Your task to perform on an android device: Open the calendar and show me this week's events Image 0: 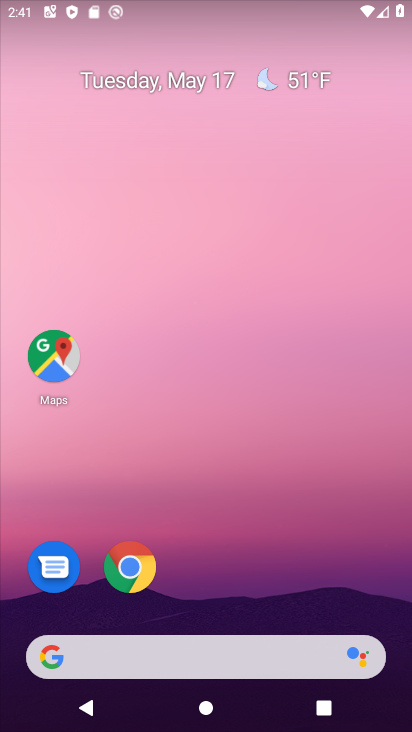
Step 0: drag from (213, 659) to (210, 378)
Your task to perform on an android device: Open the calendar and show me this week's events Image 1: 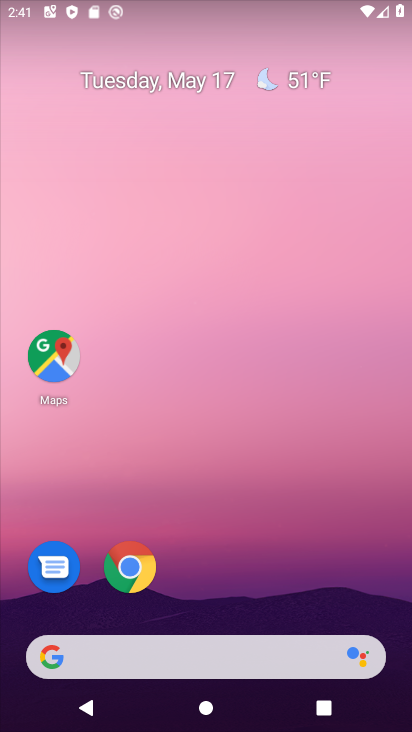
Step 1: drag from (207, 650) to (170, 230)
Your task to perform on an android device: Open the calendar and show me this week's events Image 2: 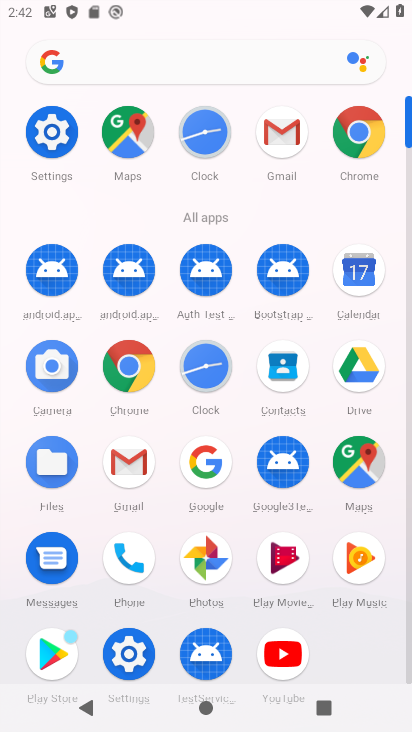
Step 2: click (366, 263)
Your task to perform on an android device: Open the calendar and show me this week's events Image 3: 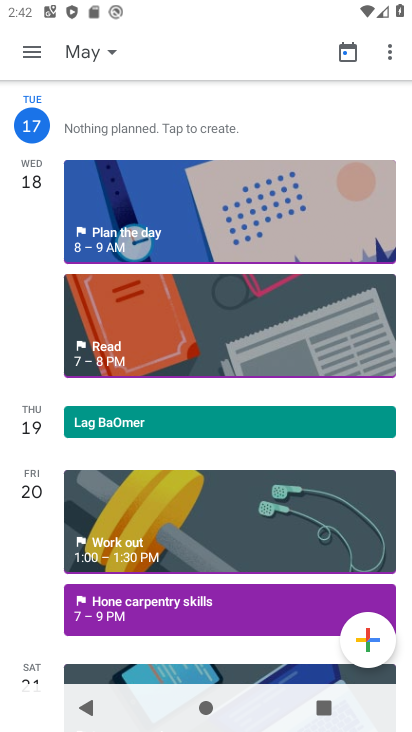
Step 3: click (40, 53)
Your task to perform on an android device: Open the calendar and show me this week's events Image 4: 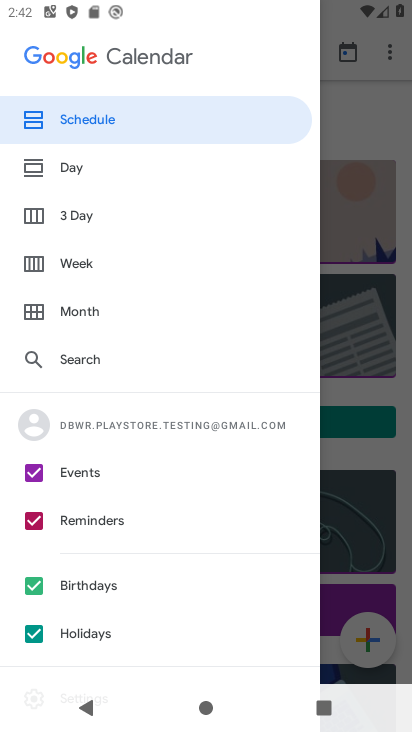
Step 4: click (73, 258)
Your task to perform on an android device: Open the calendar and show me this week's events Image 5: 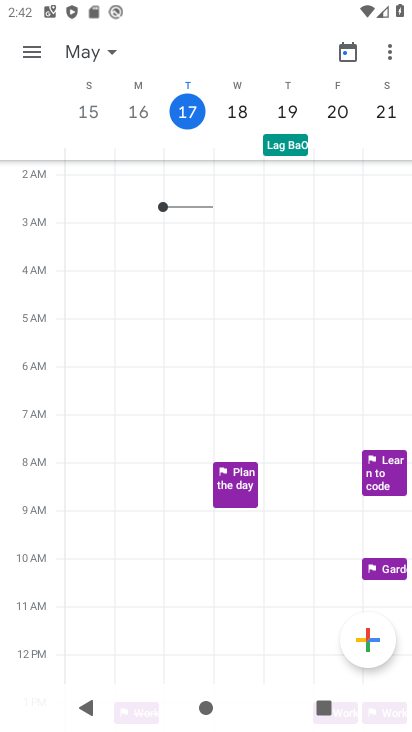
Step 5: task complete